Your task to perform on an android device: toggle sleep mode Image 0: 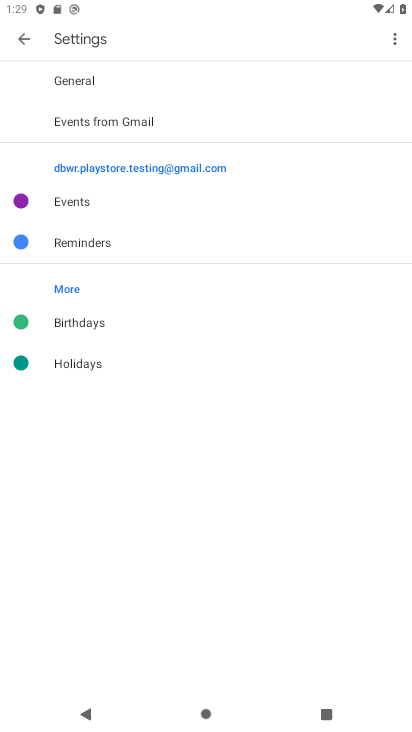
Step 0: press home button
Your task to perform on an android device: toggle sleep mode Image 1: 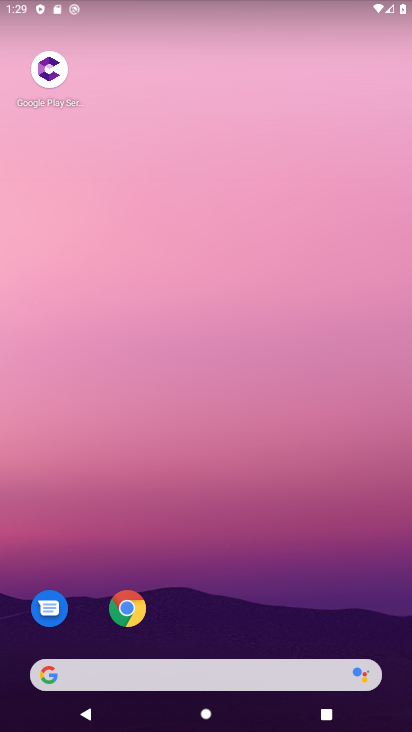
Step 1: drag from (79, 439) to (407, 443)
Your task to perform on an android device: toggle sleep mode Image 2: 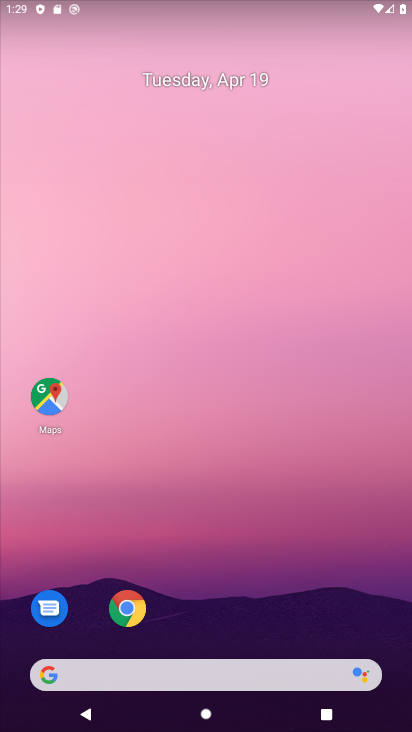
Step 2: drag from (199, 634) to (206, 175)
Your task to perform on an android device: toggle sleep mode Image 3: 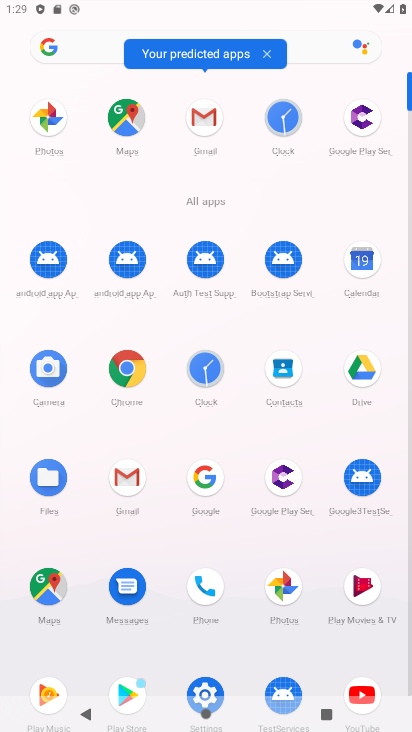
Step 3: click (209, 680)
Your task to perform on an android device: toggle sleep mode Image 4: 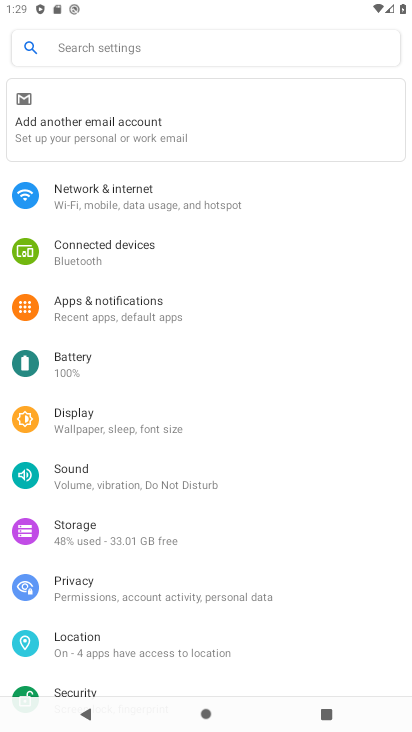
Step 4: click (162, 420)
Your task to perform on an android device: toggle sleep mode Image 5: 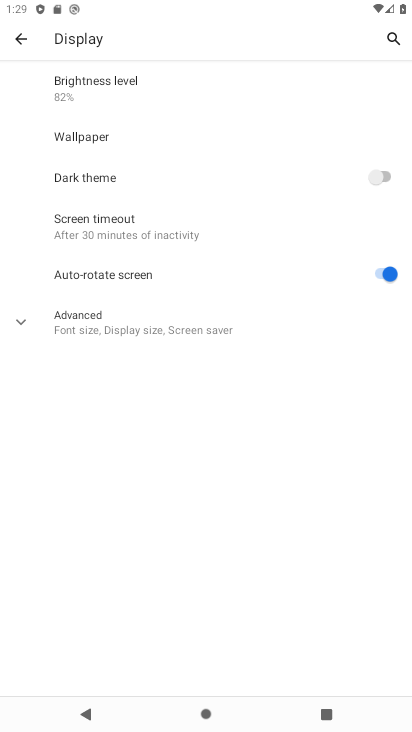
Step 5: click (177, 220)
Your task to perform on an android device: toggle sleep mode Image 6: 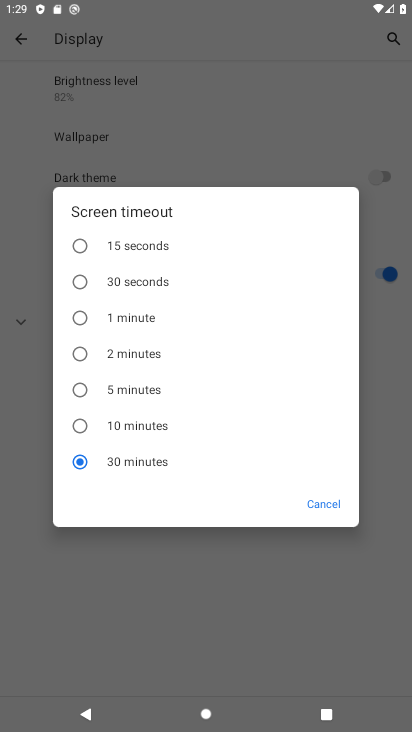
Step 6: click (115, 240)
Your task to perform on an android device: toggle sleep mode Image 7: 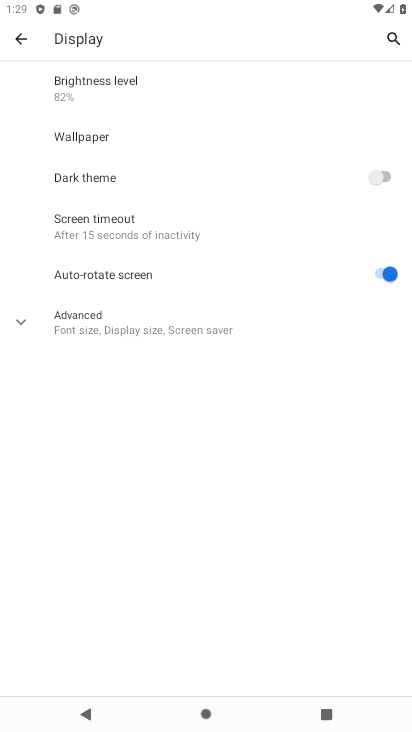
Step 7: task complete